Your task to perform on an android device: Open CNN.com Image 0: 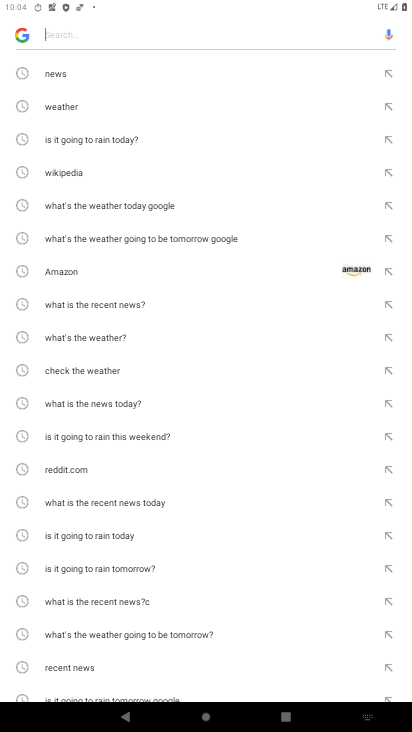
Step 0: press home button
Your task to perform on an android device: Open CNN.com Image 1: 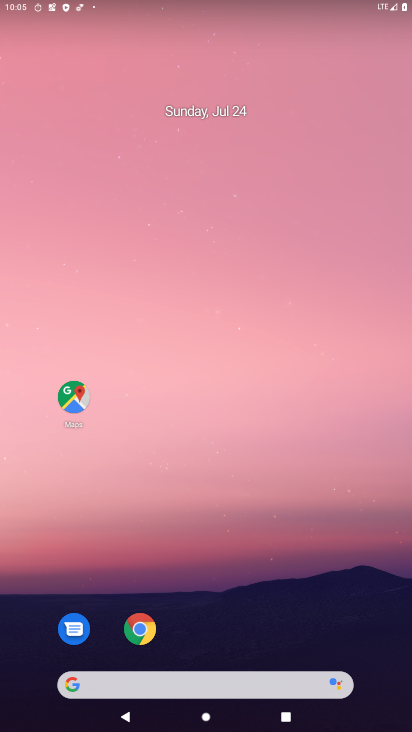
Step 1: click (70, 683)
Your task to perform on an android device: Open CNN.com Image 2: 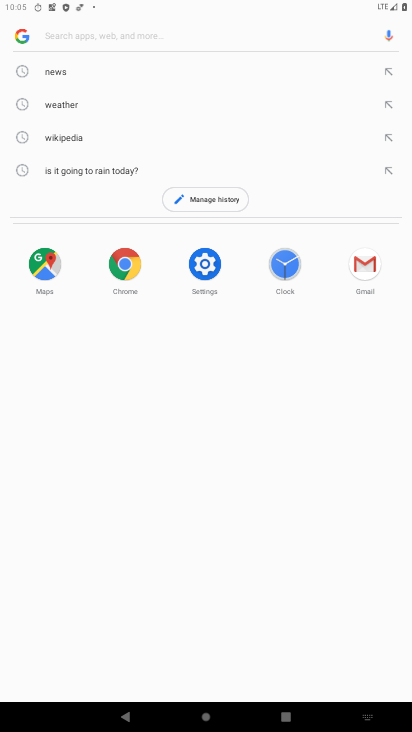
Step 2: type " CNN.com"
Your task to perform on an android device: Open CNN.com Image 3: 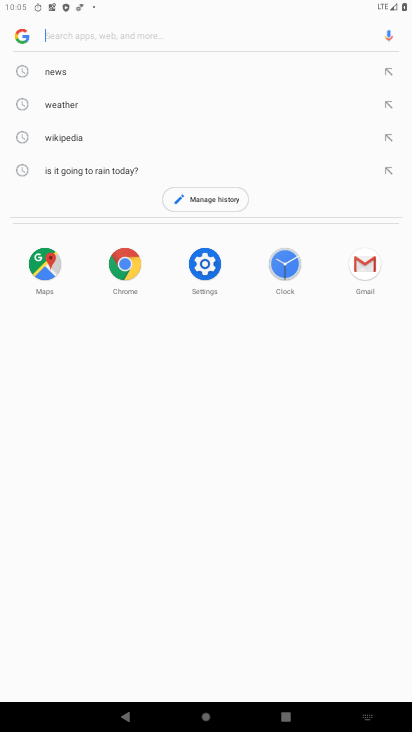
Step 3: click (65, 34)
Your task to perform on an android device: Open CNN.com Image 4: 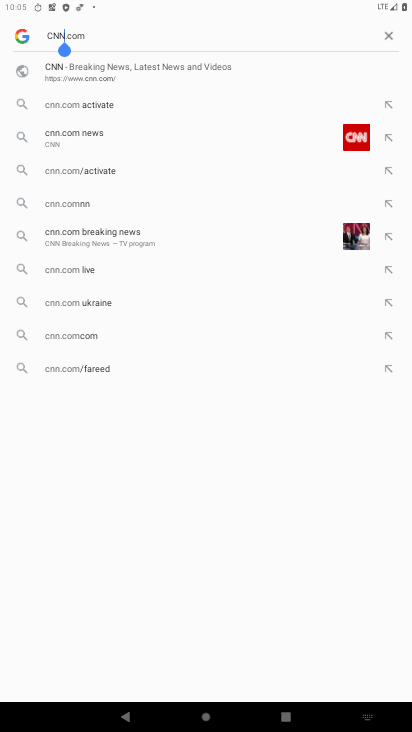
Step 4: press enter
Your task to perform on an android device: Open CNN.com Image 5: 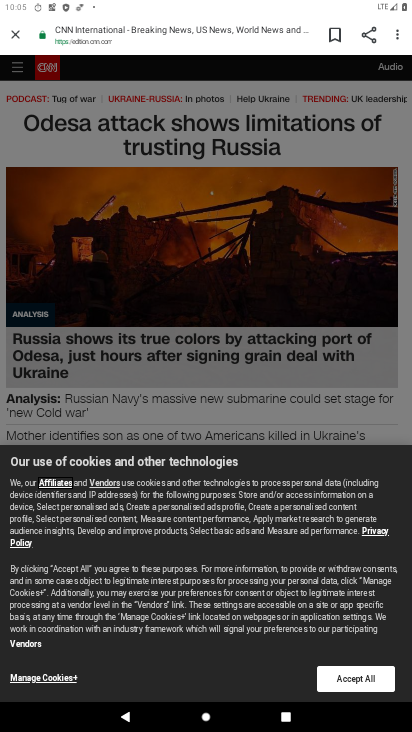
Step 5: click (361, 676)
Your task to perform on an android device: Open CNN.com Image 6: 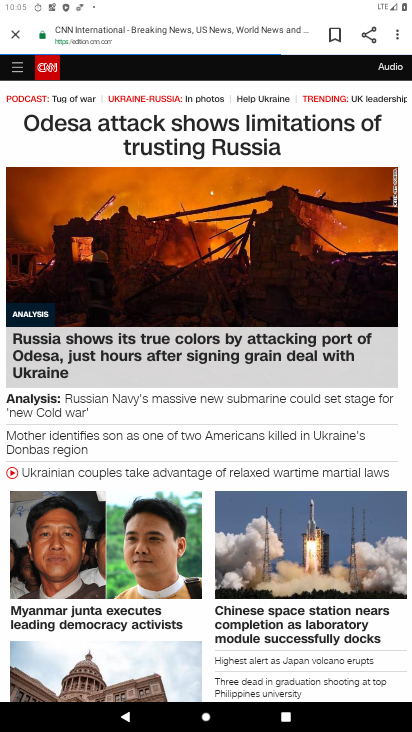
Step 6: task complete